Your task to perform on an android device: toggle translation in the chrome app Image 0: 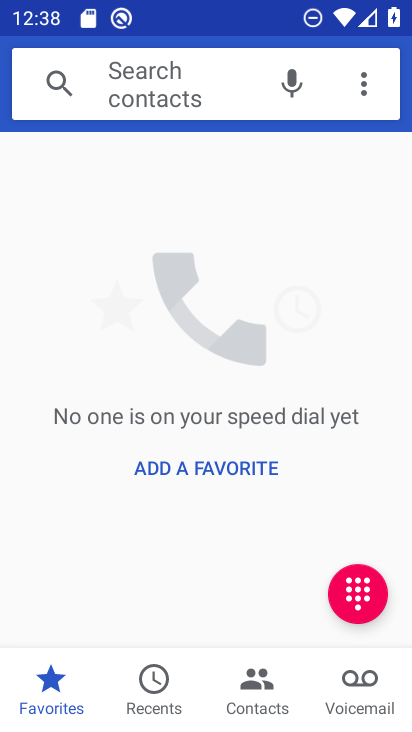
Step 0: press home button
Your task to perform on an android device: toggle translation in the chrome app Image 1: 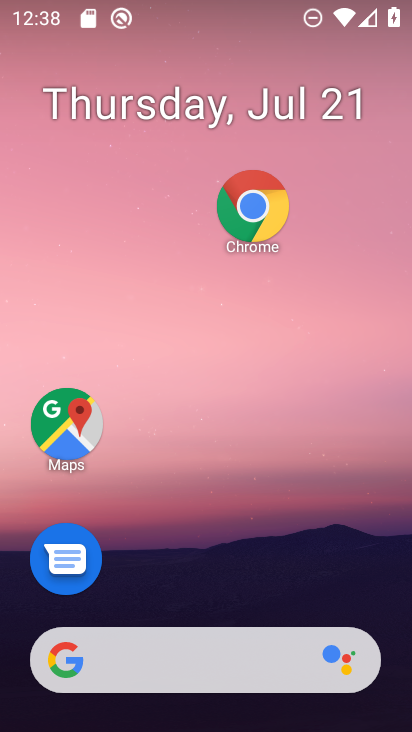
Step 1: drag from (242, 679) to (336, 217)
Your task to perform on an android device: toggle translation in the chrome app Image 2: 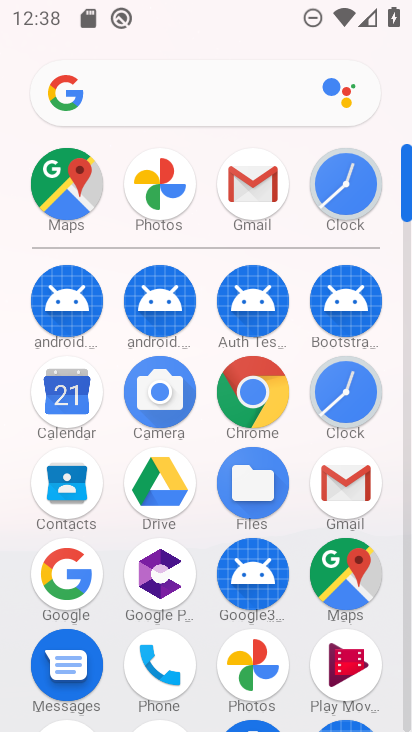
Step 2: click (263, 400)
Your task to perform on an android device: toggle translation in the chrome app Image 3: 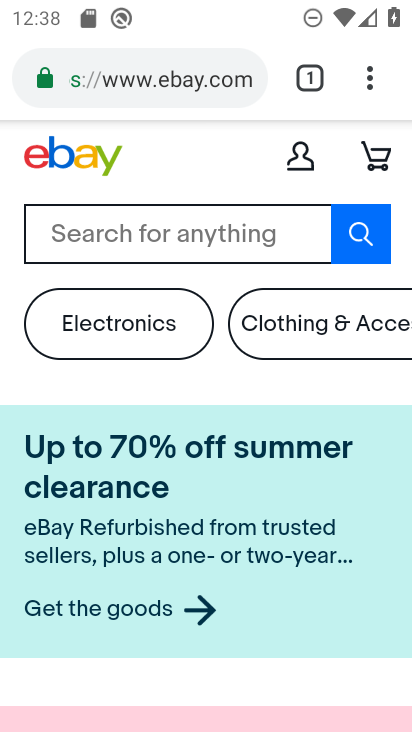
Step 3: click (377, 89)
Your task to perform on an android device: toggle translation in the chrome app Image 4: 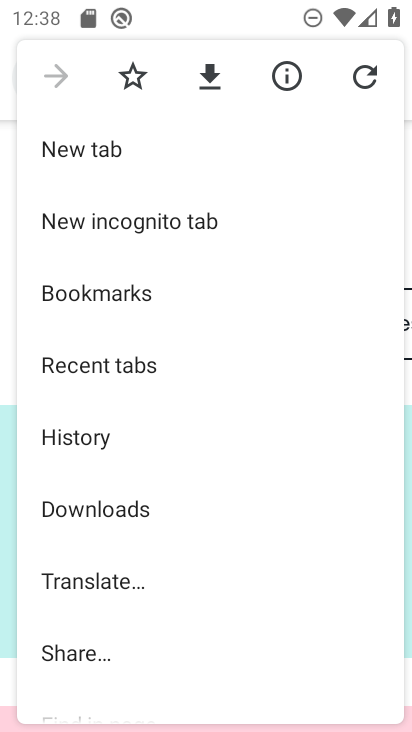
Step 4: click (99, 589)
Your task to perform on an android device: toggle translation in the chrome app Image 5: 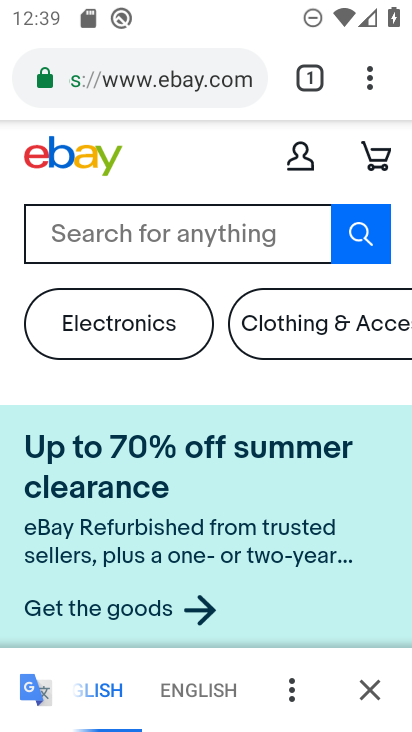
Step 5: click (291, 691)
Your task to perform on an android device: toggle translation in the chrome app Image 6: 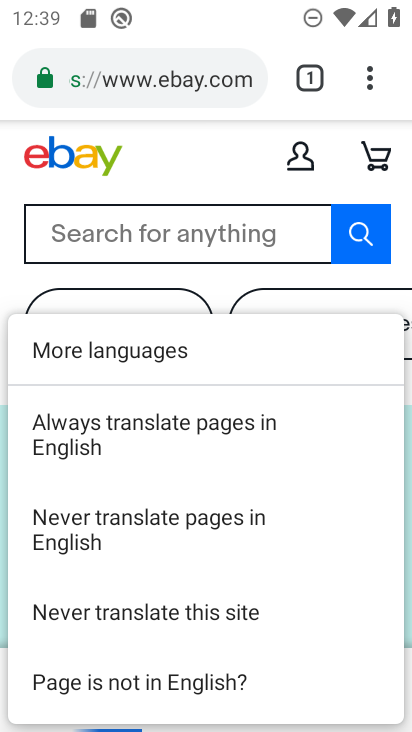
Step 6: click (258, 433)
Your task to perform on an android device: toggle translation in the chrome app Image 7: 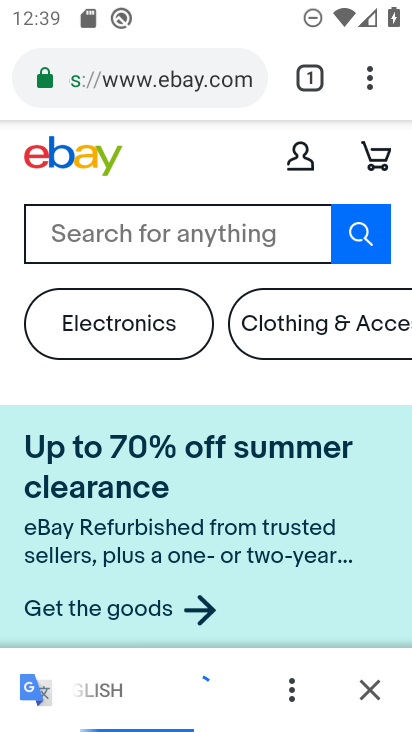
Step 7: task complete